Your task to perform on an android device: move an email to a new category in the gmail app Image 0: 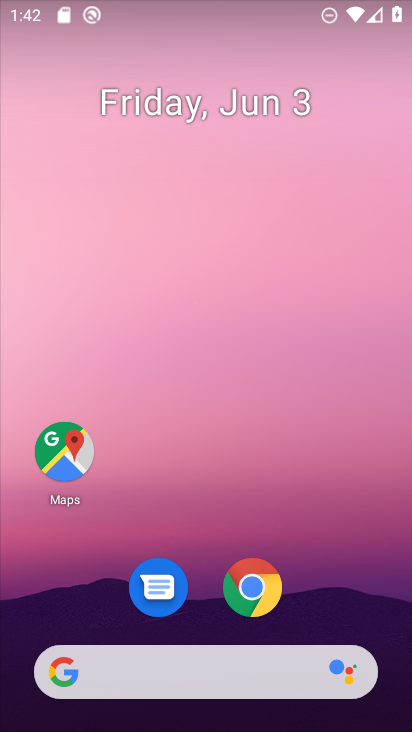
Step 0: drag from (327, 588) to (397, 5)
Your task to perform on an android device: move an email to a new category in the gmail app Image 1: 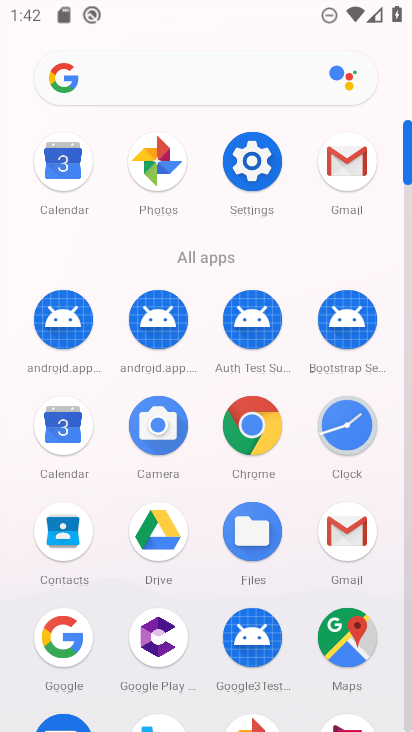
Step 1: click (361, 524)
Your task to perform on an android device: move an email to a new category in the gmail app Image 2: 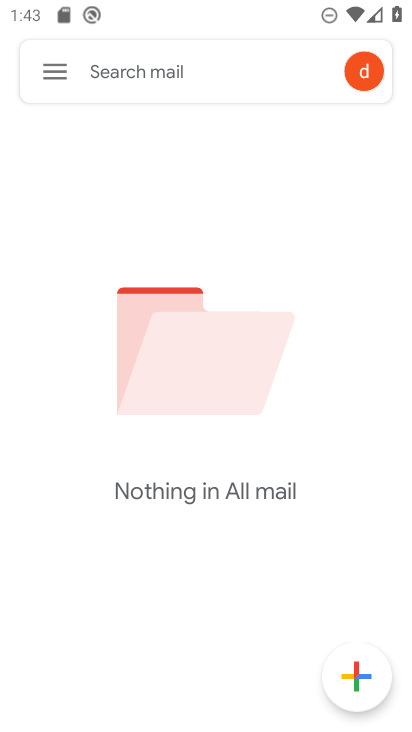
Step 2: task complete